Your task to perform on an android device: turn off location history Image 0: 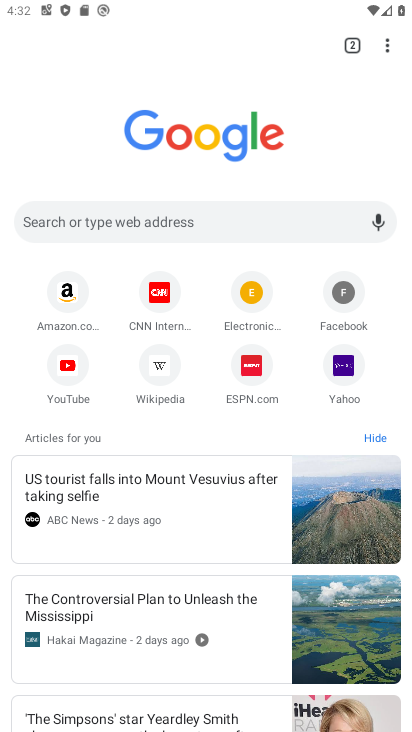
Step 0: press home button
Your task to perform on an android device: turn off location history Image 1: 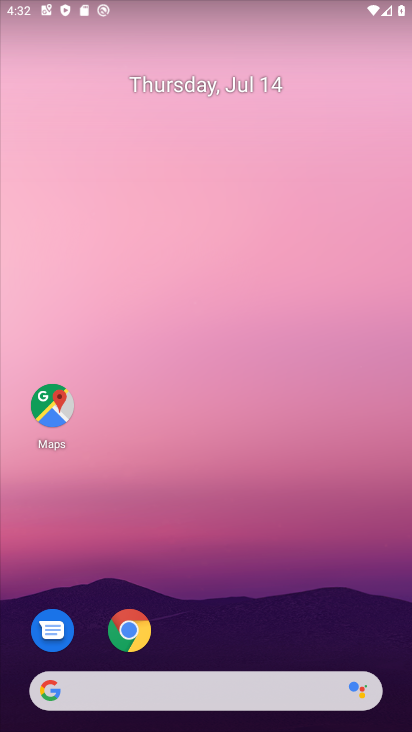
Step 1: drag from (201, 688) to (241, 213)
Your task to perform on an android device: turn off location history Image 2: 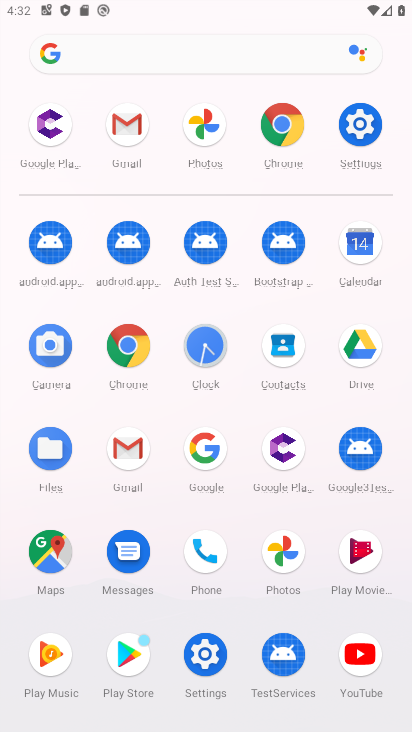
Step 2: click (370, 143)
Your task to perform on an android device: turn off location history Image 3: 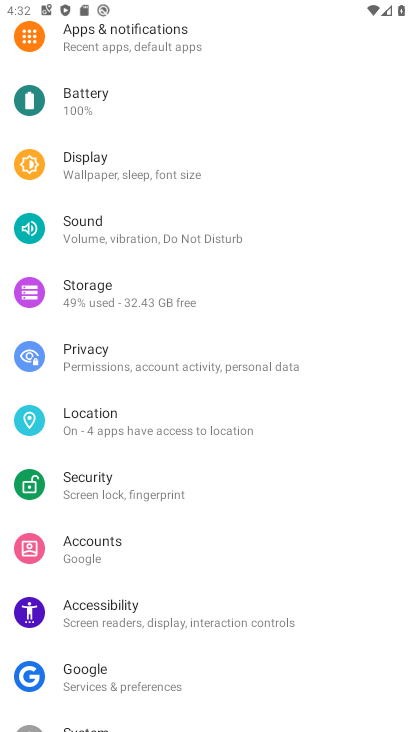
Step 3: click (154, 423)
Your task to perform on an android device: turn off location history Image 4: 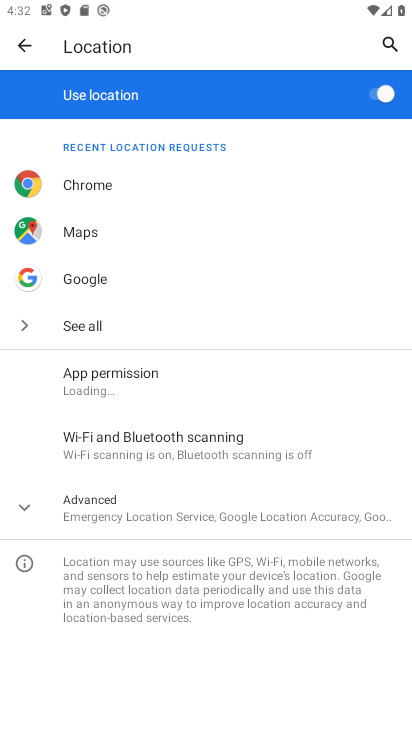
Step 4: click (174, 501)
Your task to perform on an android device: turn off location history Image 5: 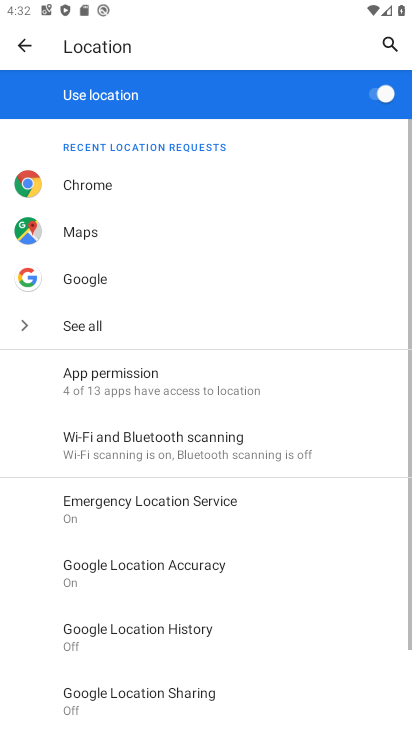
Step 5: click (195, 635)
Your task to perform on an android device: turn off location history Image 6: 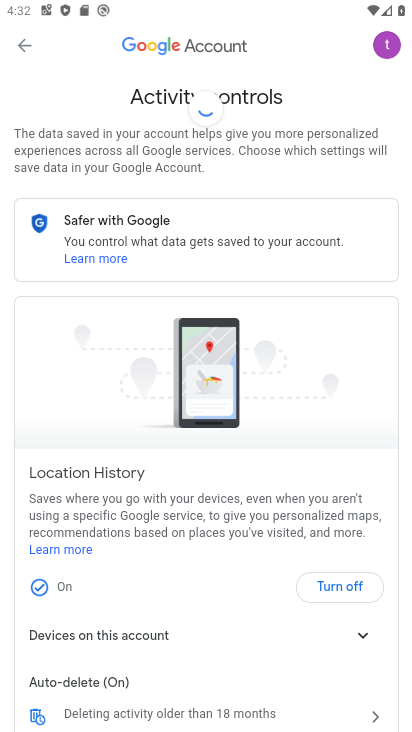
Step 6: click (354, 589)
Your task to perform on an android device: turn off location history Image 7: 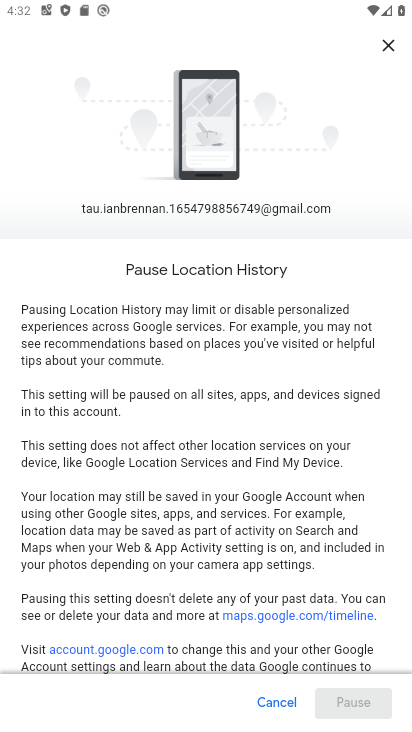
Step 7: drag from (355, 596) to (345, 188)
Your task to perform on an android device: turn off location history Image 8: 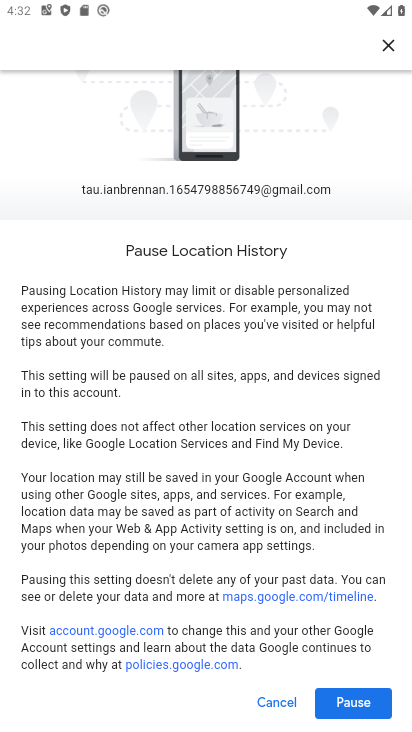
Step 8: click (371, 708)
Your task to perform on an android device: turn off location history Image 9: 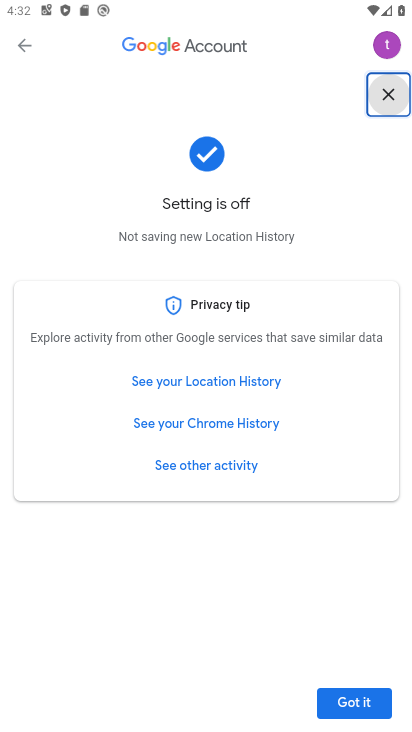
Step 9: task complete